Your task to perform on an android device: Open the calendar and show me this week's events? Image 0: 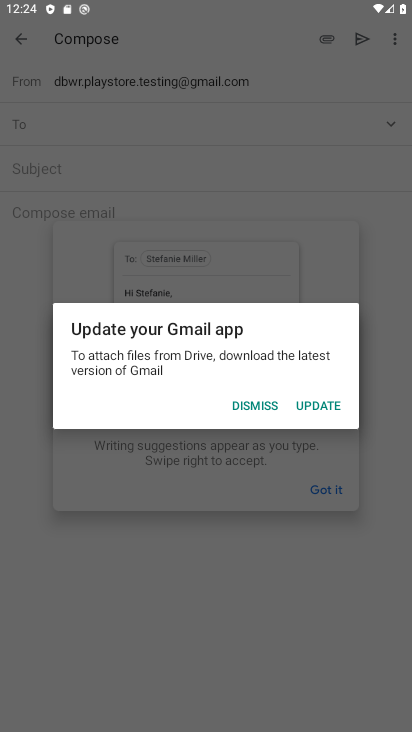
Step 0: press home button
Your task to perform on an android device: Open the calendar and show me this week's events? Image 1: 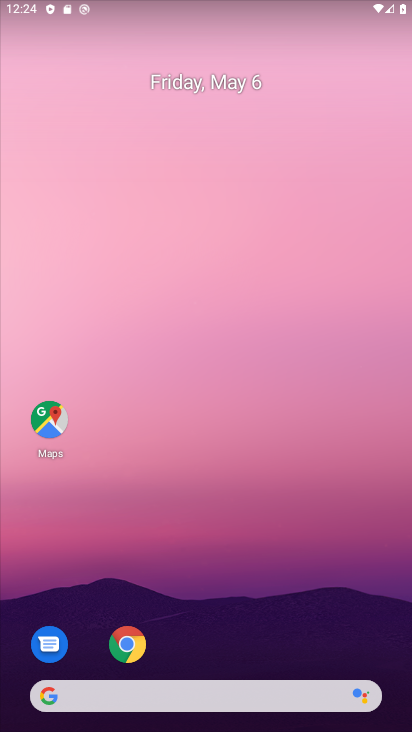
Step 1: drag from (221, 687) to (179, 0)
Your task to perform on an android device: Open the calendar and show me this week's events? Image 2: 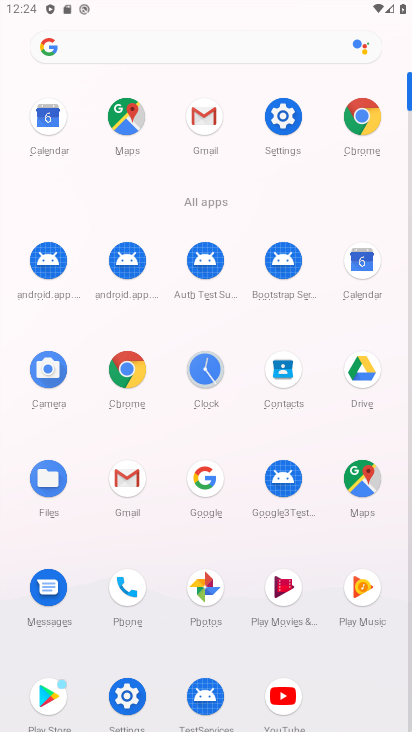
Step 2: click (365, 251)
Your task to perform on an android device: Open the calendar and show me this week's events? Image 3: 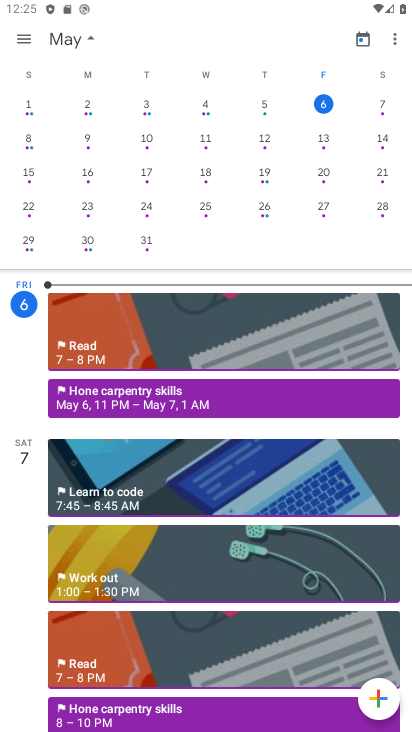
Step 3: click (388, 97)
Your task to perform on an android device: Open the calendar and show me this week's events? Image 4: 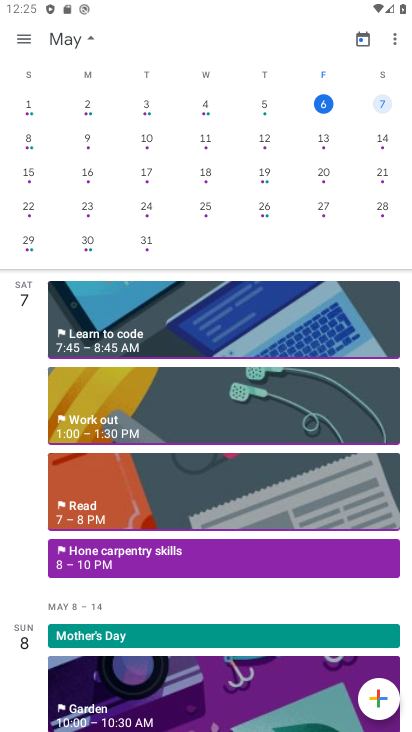
Step 4: task complete